Your task to perform on an android device: open app "Spotify: Music and Podcasts" Image 0: 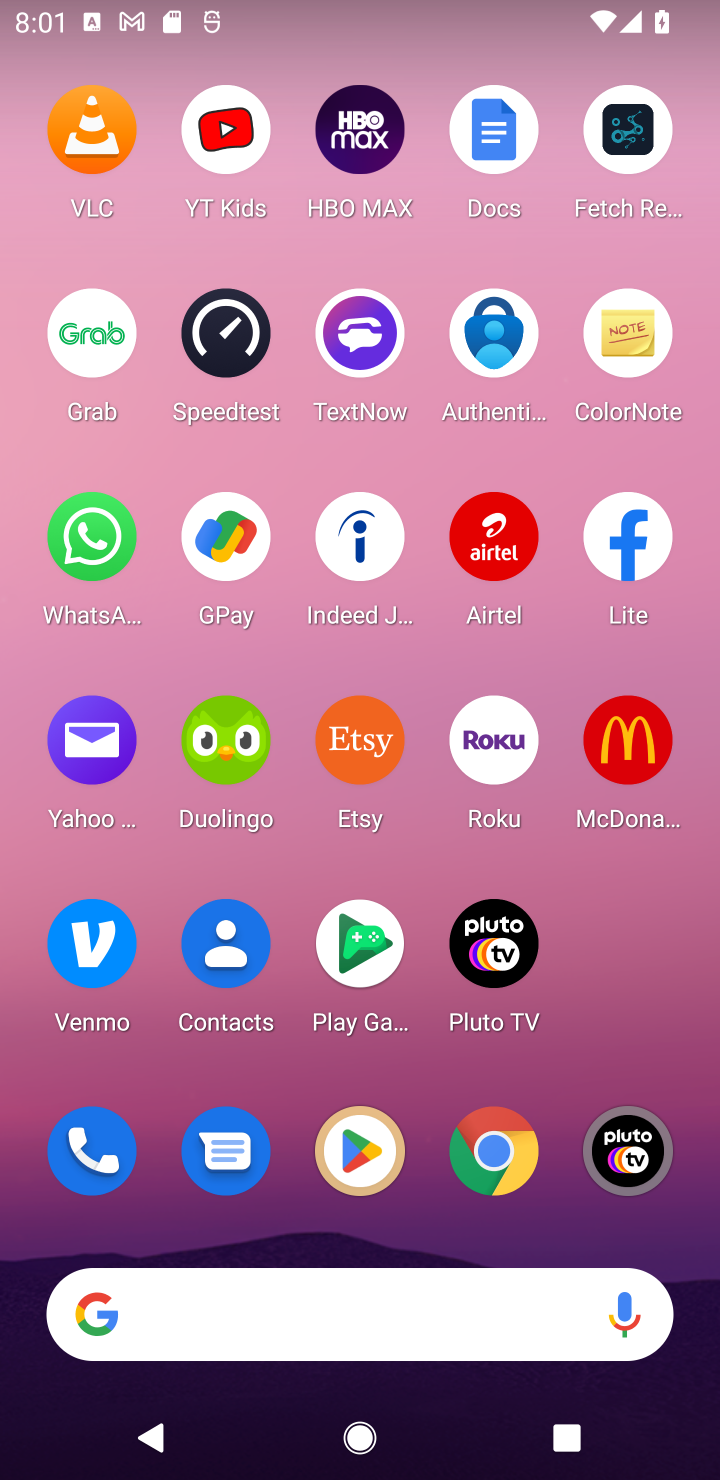
Step 0: press home button
Your task to perform on an android device: open app "Spotify: Music and Podcasts" Image 1: 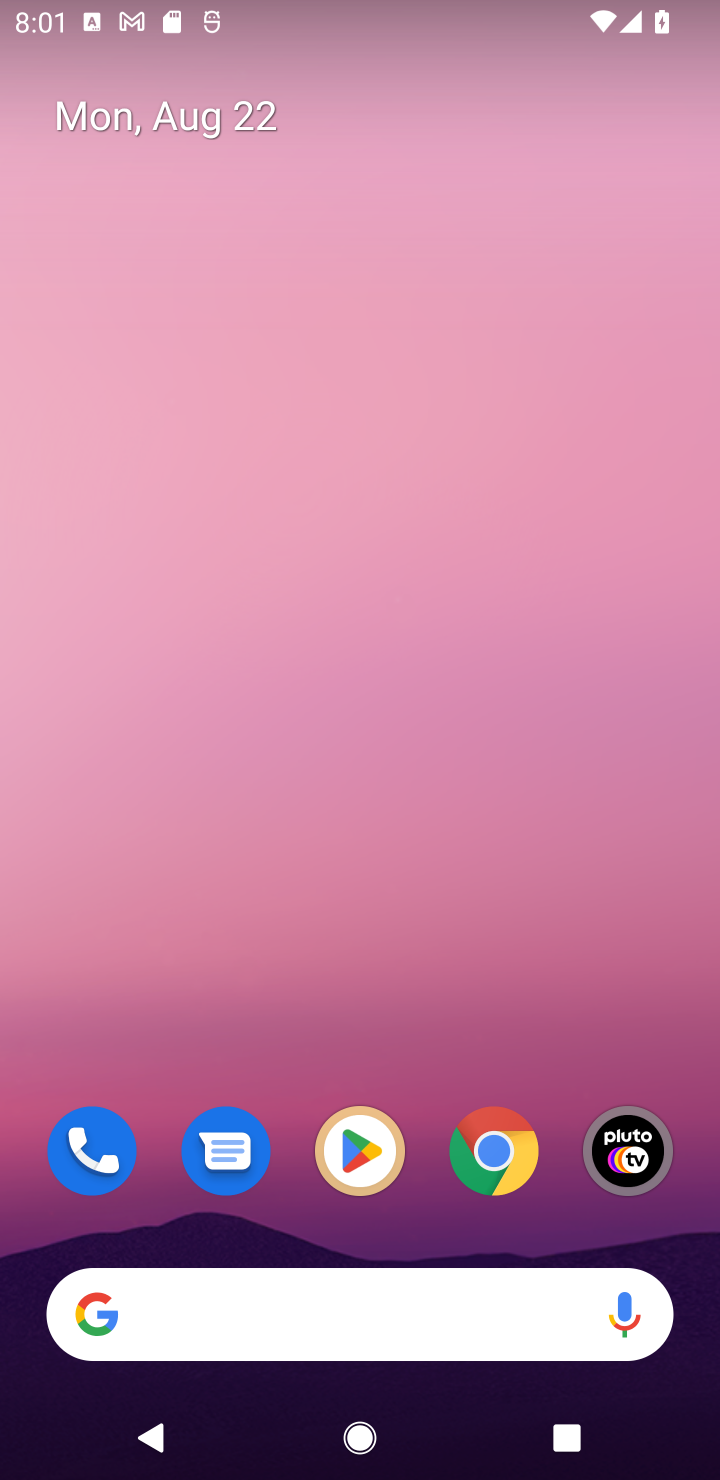
Step 1: click (362, 1139)
Your task to perform on an android device: open app "Spotify: Music and Podcasts" Image 2: 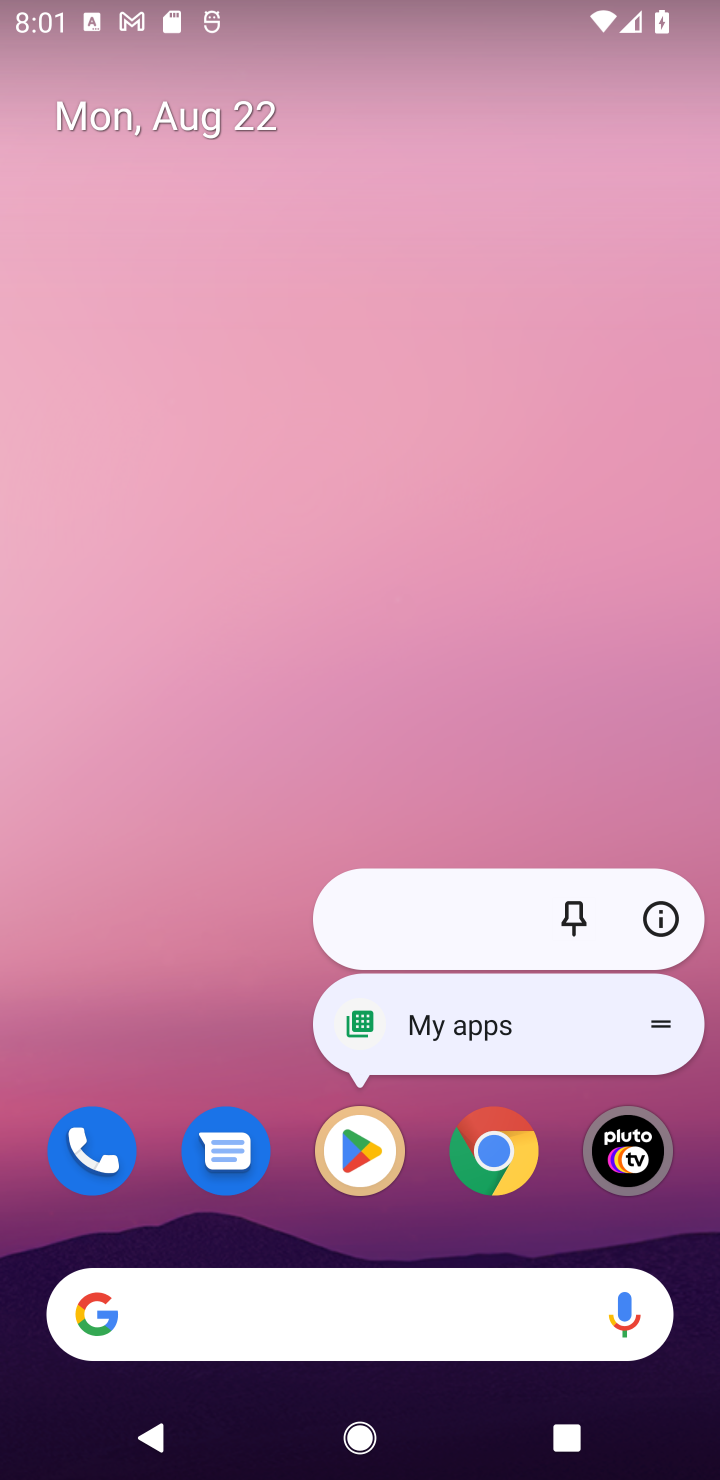
Step 2: click (365, 1151)
Your task to perform on an android device: open app "Spotify: Music and Podcasts" Image 3: 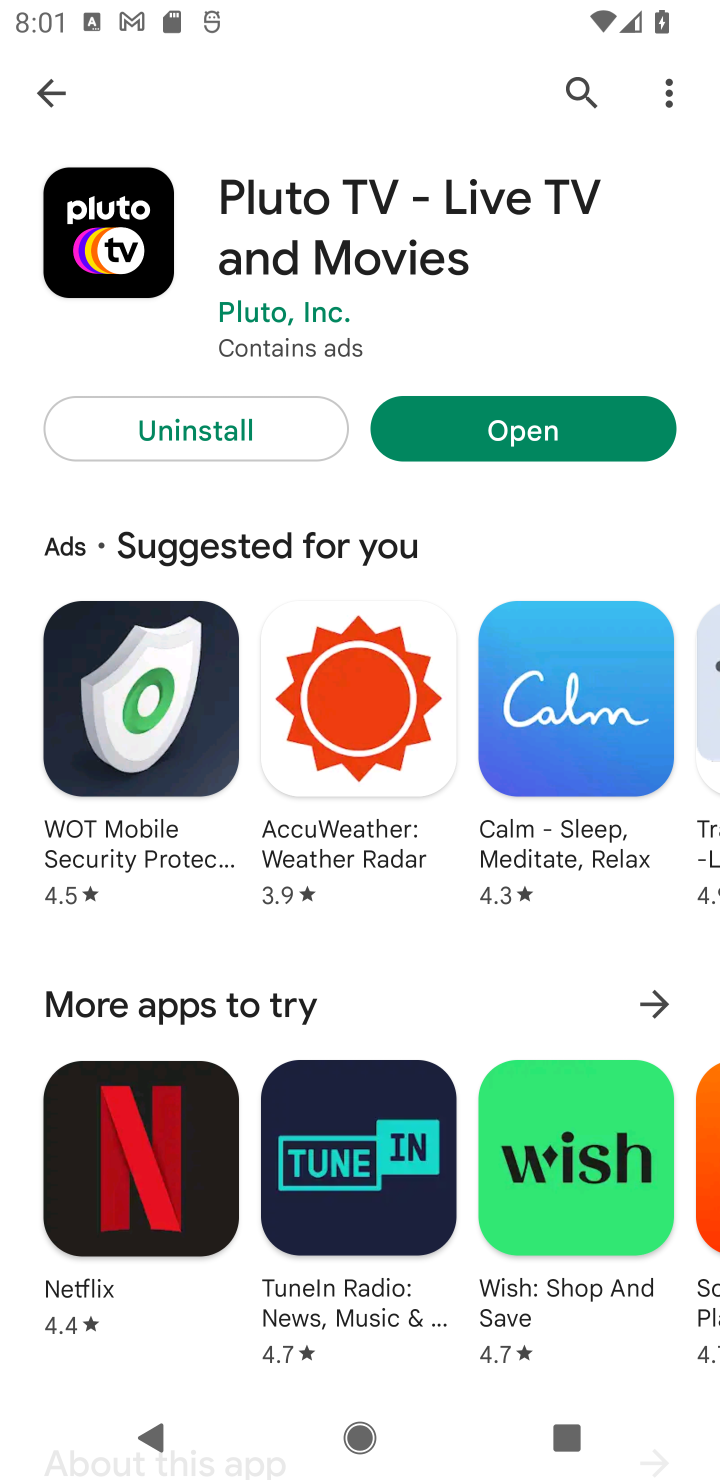
Step 3: click (577, 89)
Your task to perform on an android device: open app "Spotify: Music and Podcasts" Image 4: 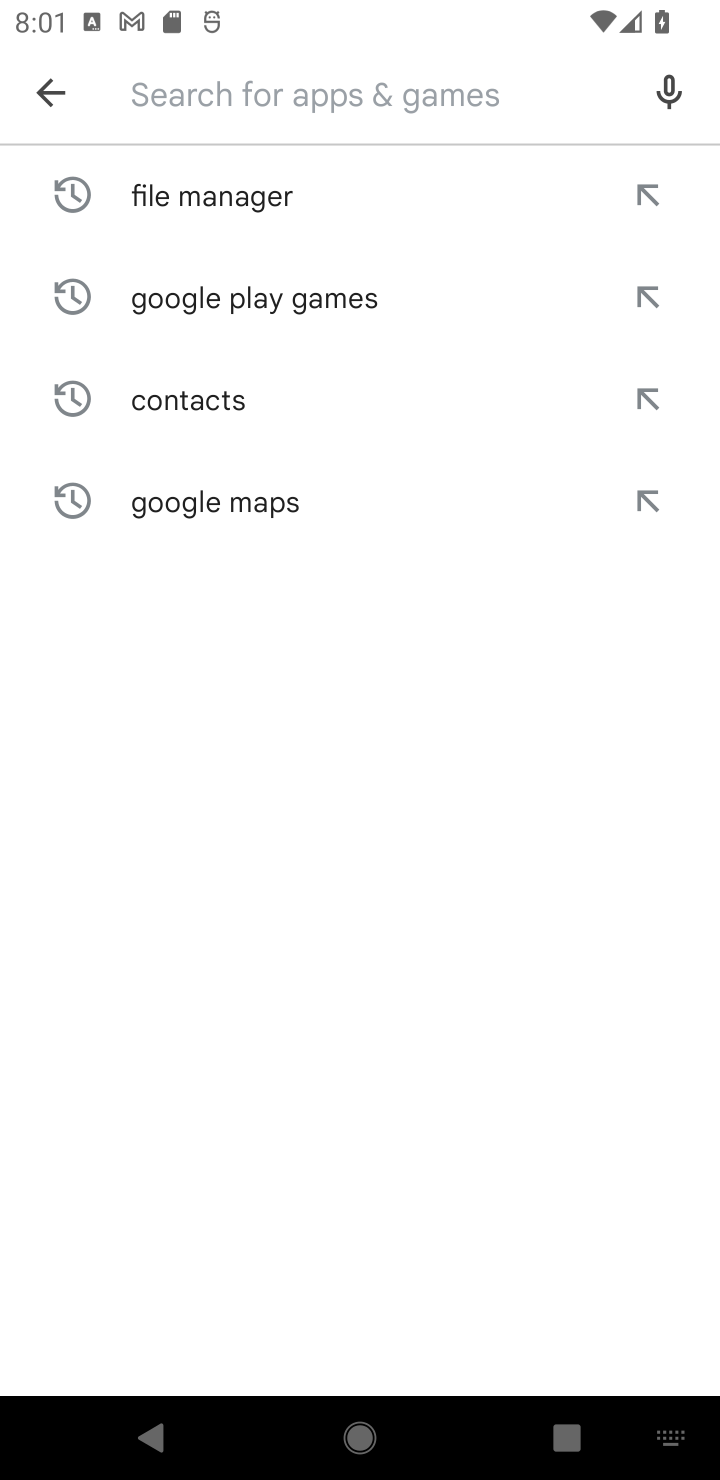
Step 4: type "Spotify: Music and Podcasts"
Your task to perform on an android device: open app "Spotify: Music and Podcasts" Image 5: 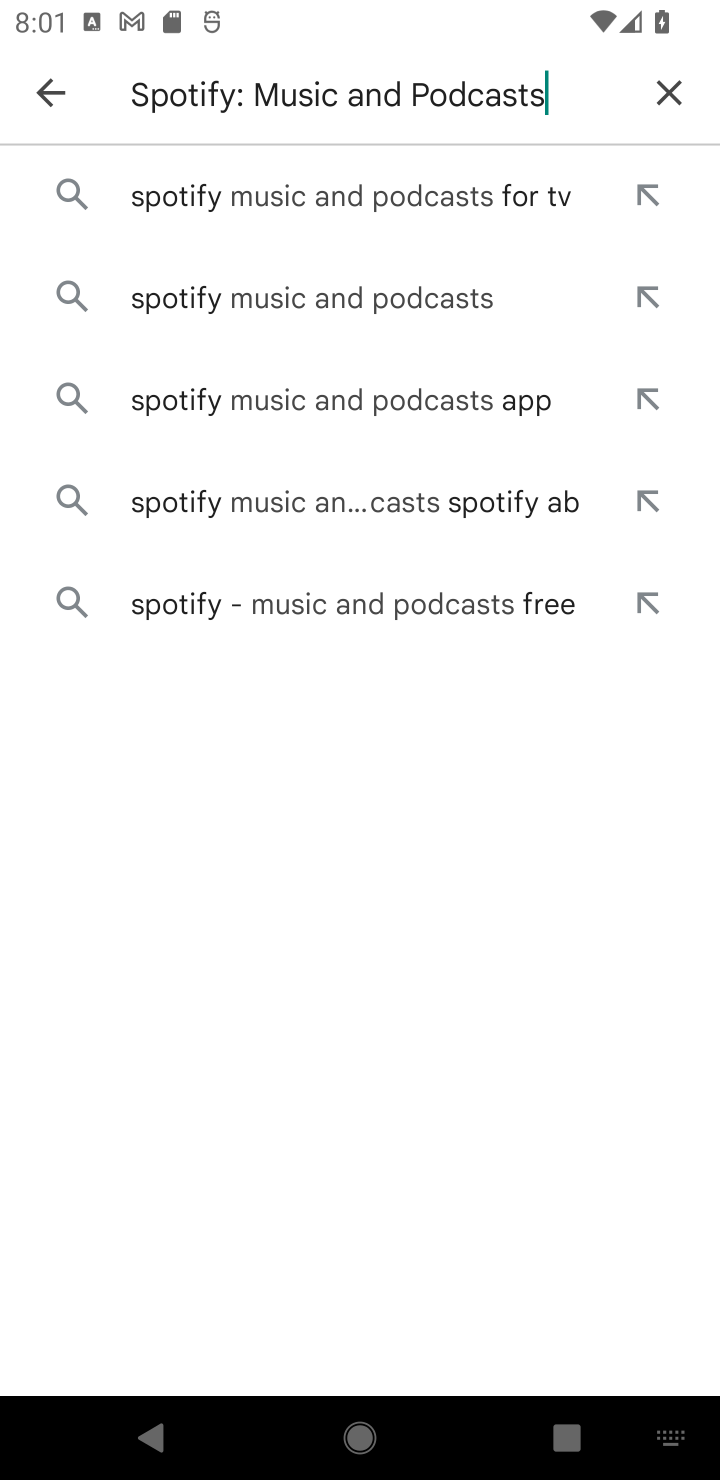
Step 5: click (235, 203)
Your task to perform on an android device: open app "Spotify: Music and Podcasts" Image 6: 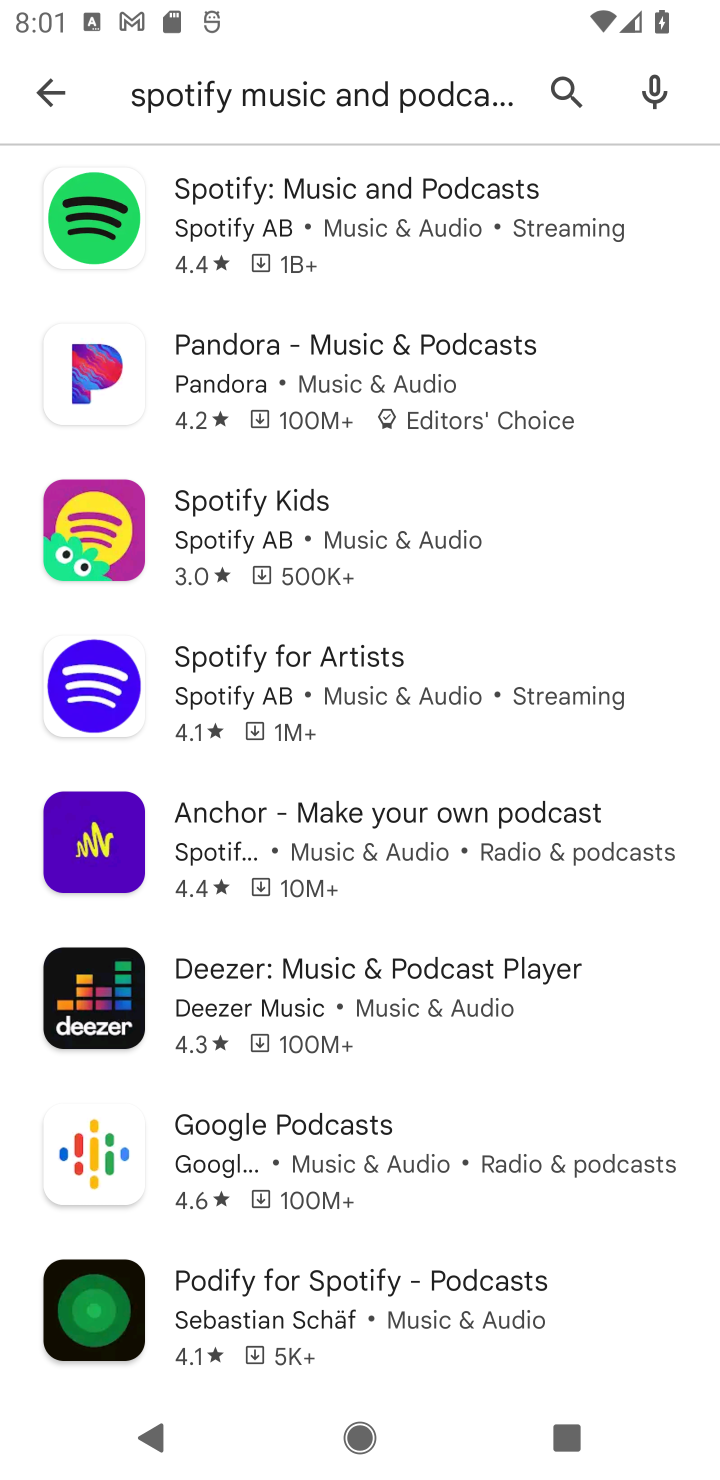
Step 6: click (241, 210)
Your task to perform on an android device: open app "Spotify: Music and Podcasts" Image 7: 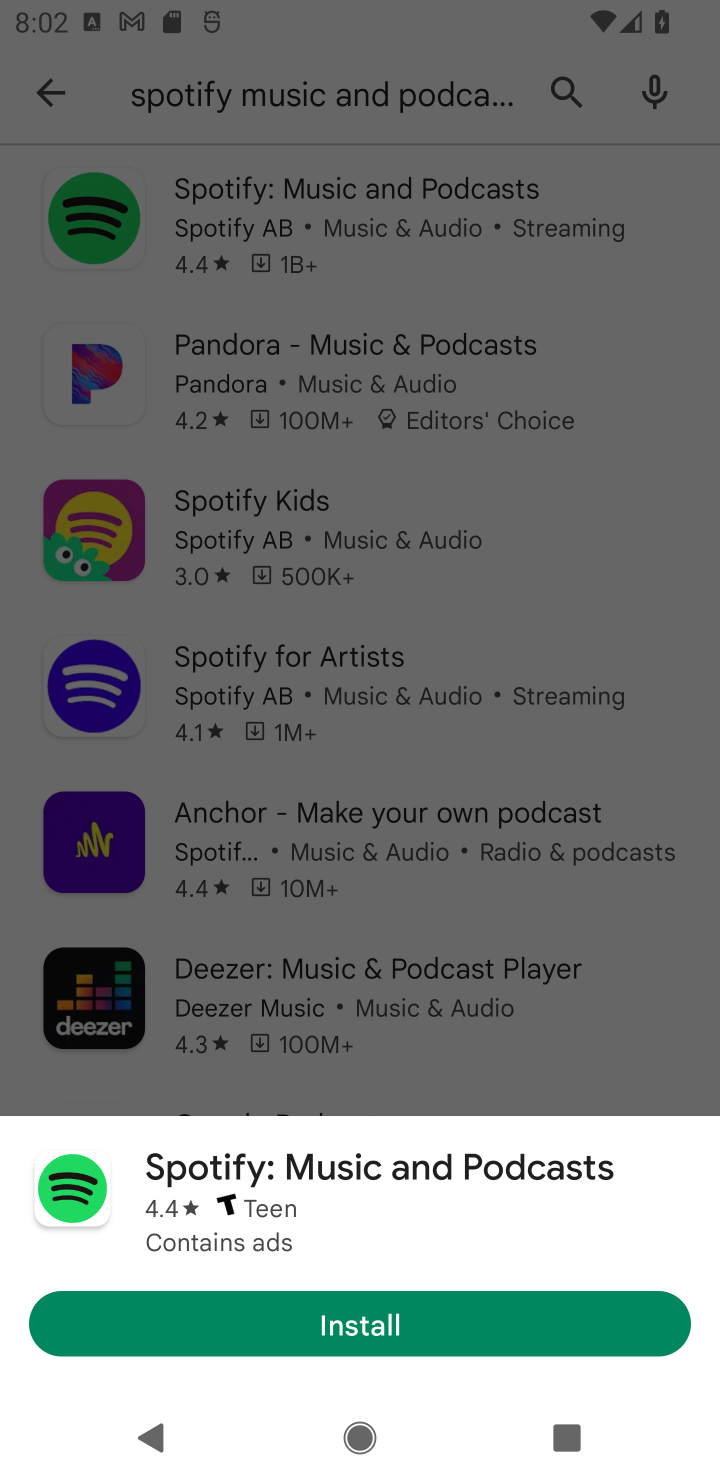
Step 7: task complete